Your task to perform on an android device: Open the phone app and click the voicemail tab. Image 0: 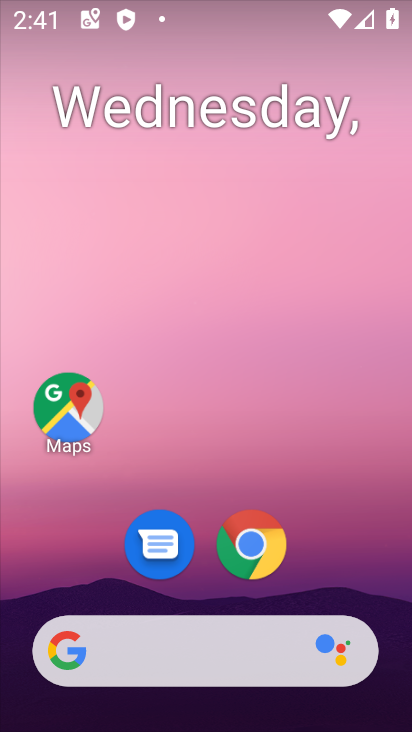
Step 0: drag from (326, 563) to (357, 173)
Your task to perform on an android device: Open the phone app and click the voicemail tab. Image 1: 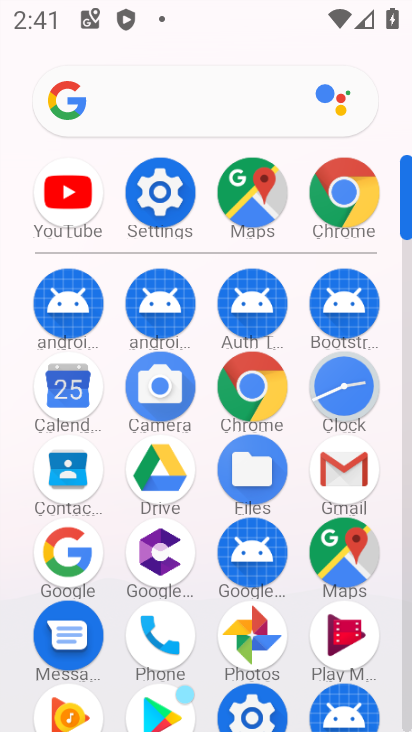
Step 1: drag from (219, 565) to (232, 192)
Your task to perform on an android device: Open the phone app and click the voicemail tab. Image 2: 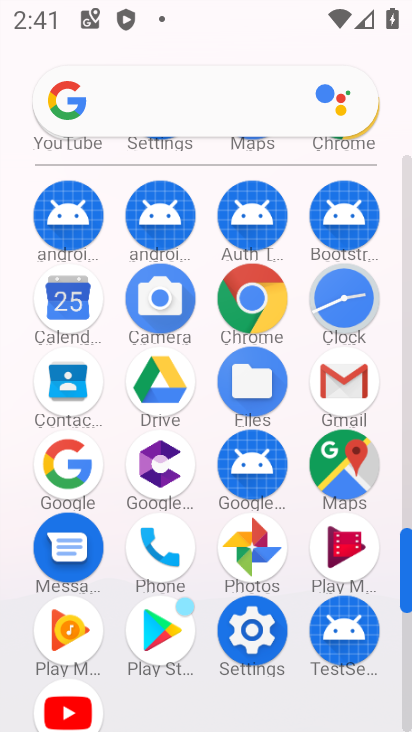
Step 2: click (173, 581)
Your task to perform on an android device: Open the phone app and click the voicemail tab. Image 3: 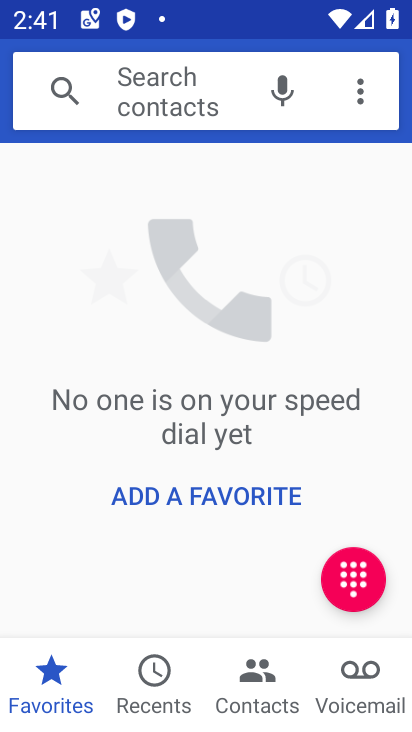
Step 3: click (353, 698)
Your task to perform on an android device: Open the phone app and click the voicemail tab. Image 4: 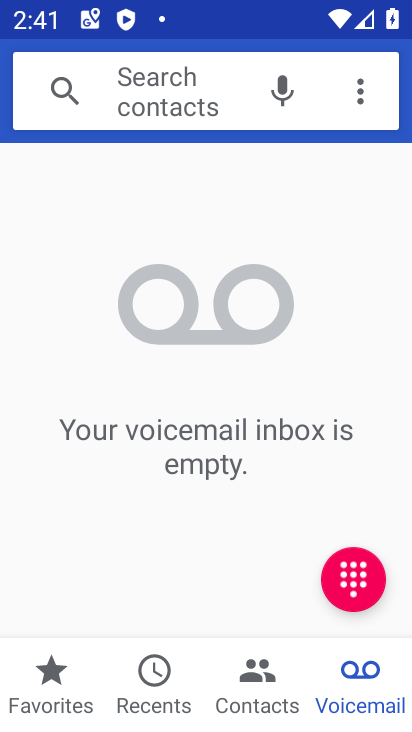
Step 4: task complete